Your task to perform on an android device: turn off translation in the chrome app Image 0: 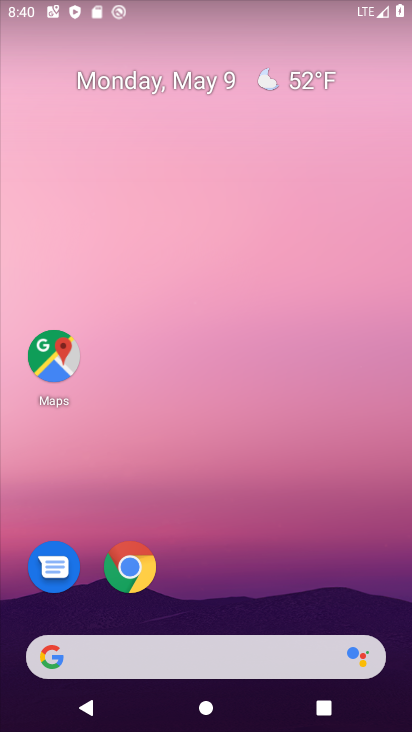
Step 0: click (144, 566)
Your task to perform on an android device: turn off translation in the chrome app Image 1: 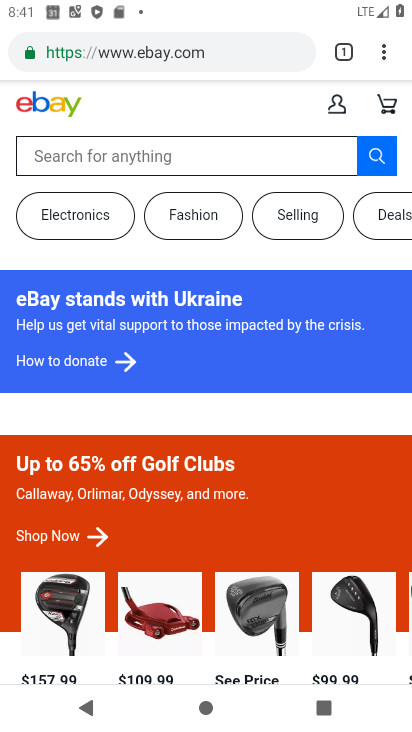
Step 1: click (379, 49)
Your task to perform on an android device: turn off translation in the chrome app Image 2: 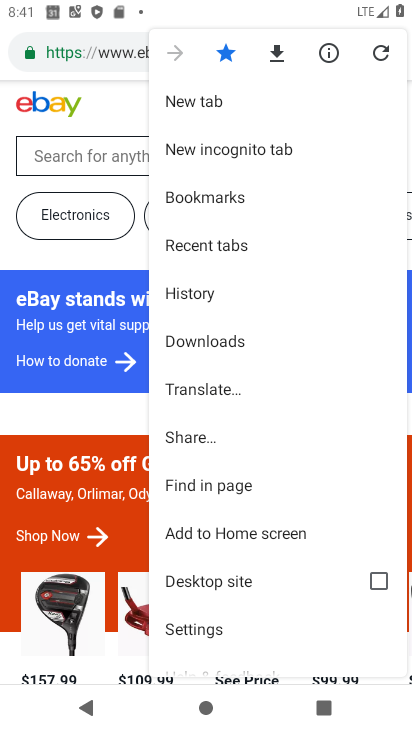
Step 2: click (214, 616)
Your task to perform on an android device: turn off translation in the chrome app Image 3: 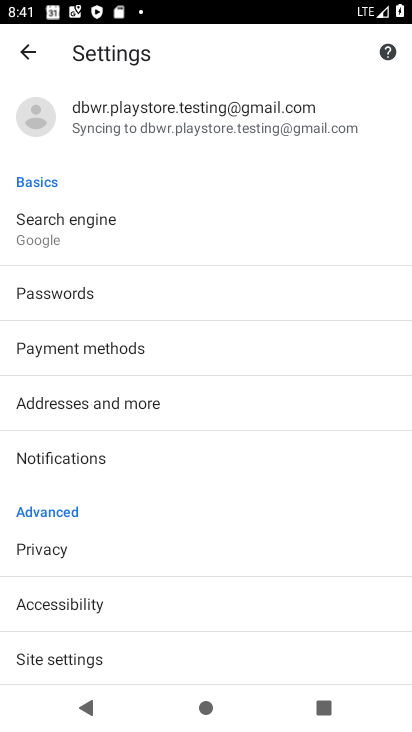
Step 3: drag from (268, 587) to (235, 348)
Your task to perform on an android device: turn off translation in the chrome app Image 4: 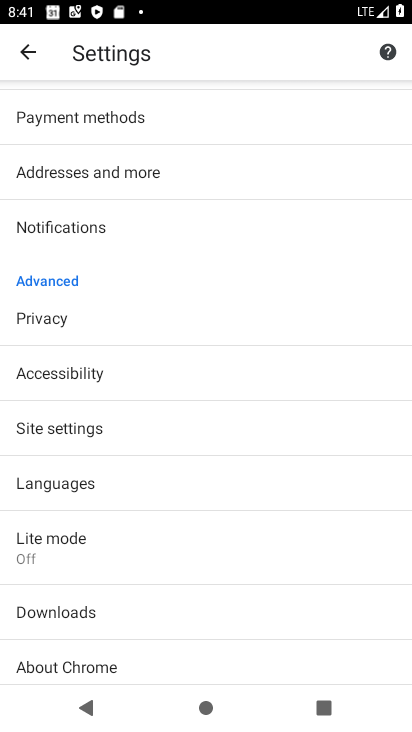
Step 4: click (82, 491)
Your task to perform on an android device: turn off translation in the chrome app Image 5: 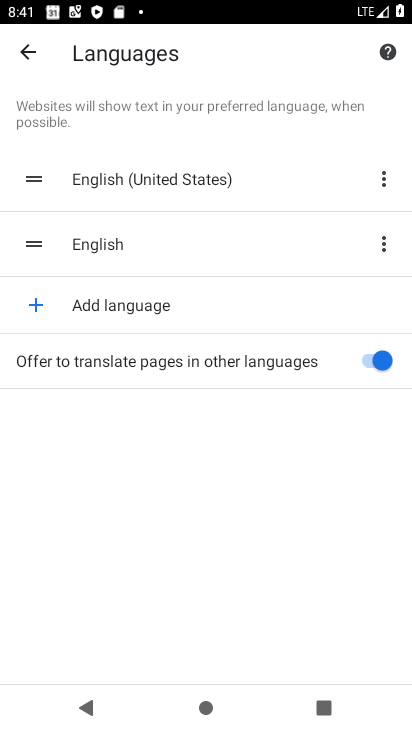
Step 5: click (379, 363)
Your task to perform on an android device: turn off translation in the chrome app Image 6: 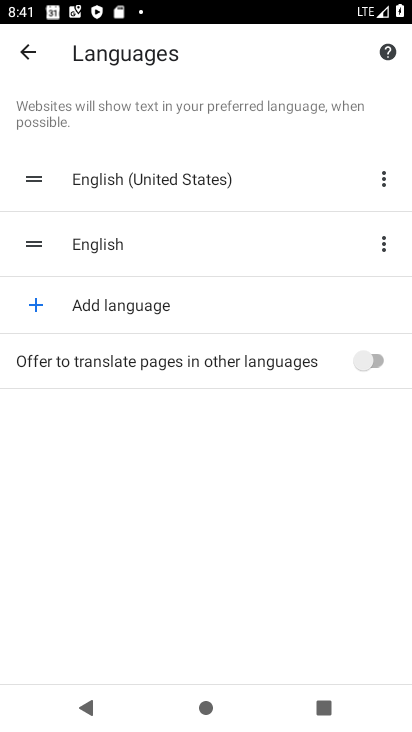
Step 6: task complete